Your task to perform on an android device: Open notification settings Image 0: 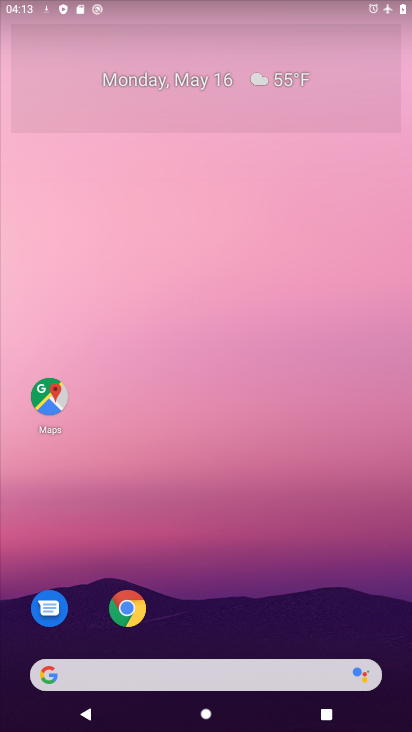
Step 0: drag from (189, 630) to (194, 227)
Your task to perform on an android device: Open notification settings Image 1: 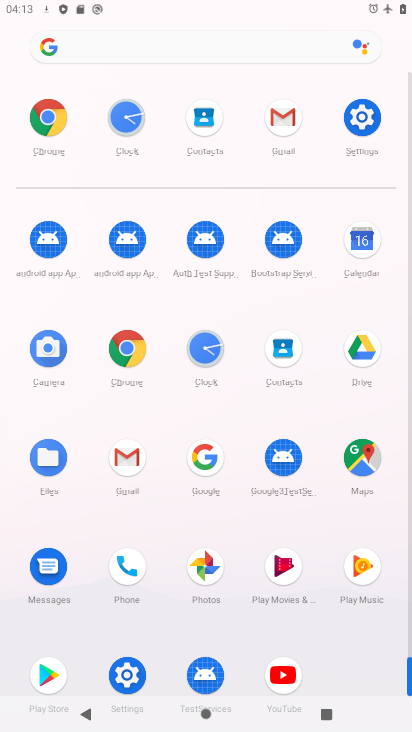
Step 1: click (361, 131)
Your task to perform on an android device: Open notification settings Image 2: 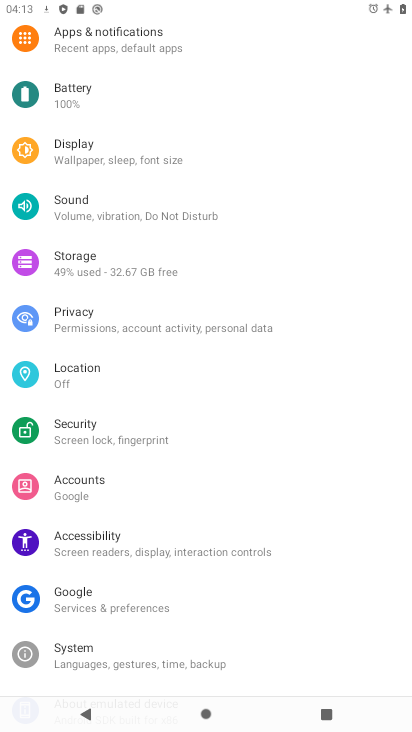
Step 2: click (151, 46)
Your task to perform on an android device: Open notification settings Image 3: 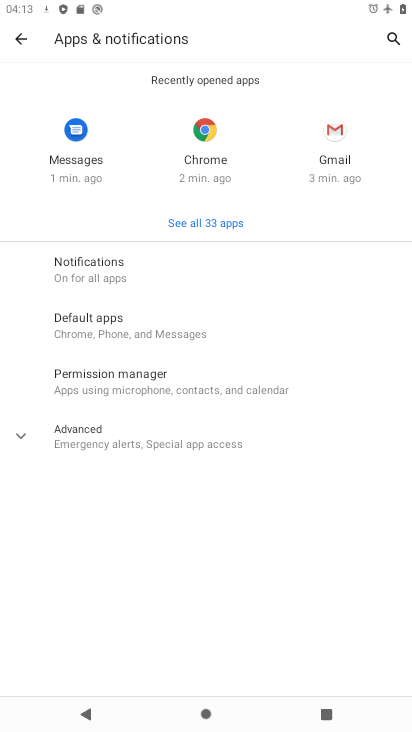
Step 3: click (122, 279)
Your task to perform on an android device: Open notification settings Image 4: 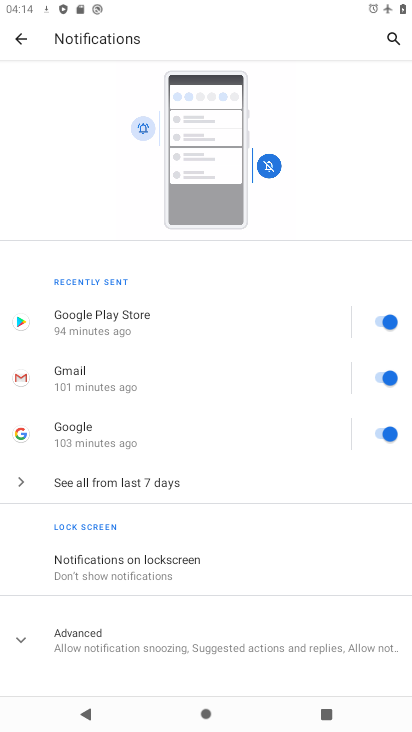
Step 4: task complete